Your task to perform on an android device: Go to internet settings Image 0: 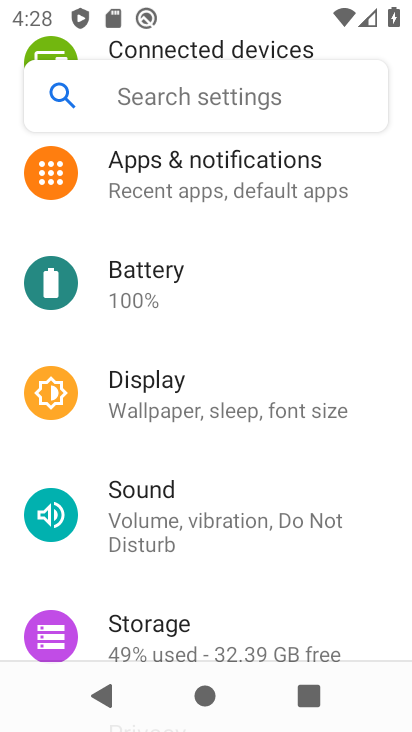
Step 0: drag from (119, 465) to (178, 730)
Your task to perform on an android device: Go to internet settings Image 1: 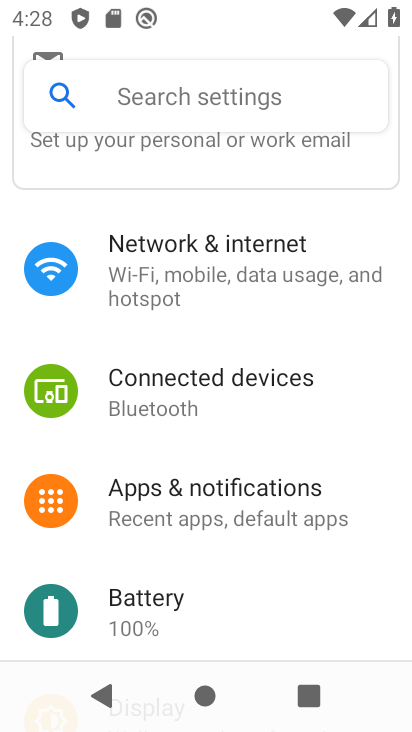
Step 1: click (212, 292)
Your task to perform on an android device: Go to internet settings Image 2: 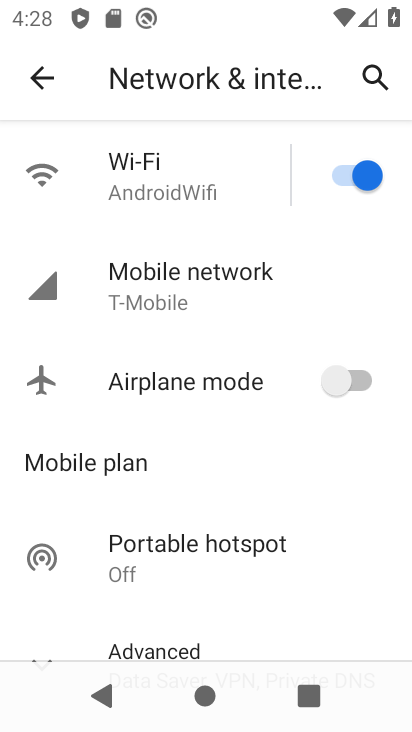
Step 2: drag from (207, 471) to (168, 13)
Your task to perform on an android device: Go to internet settings Image 3: 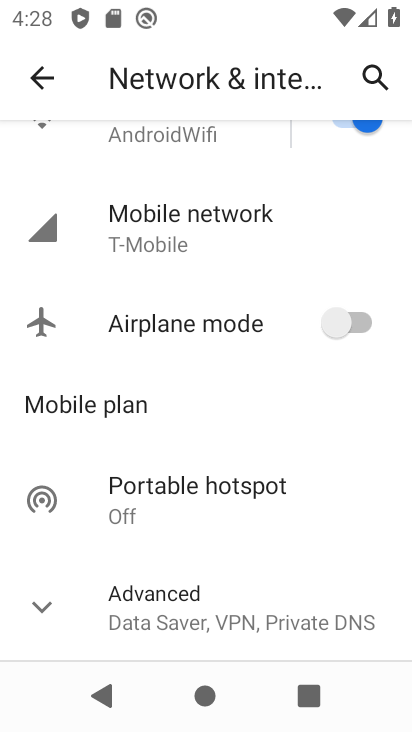
Step 3: click (160, 573)
Your task to perform on an android device: Go to internet settings Image 4: 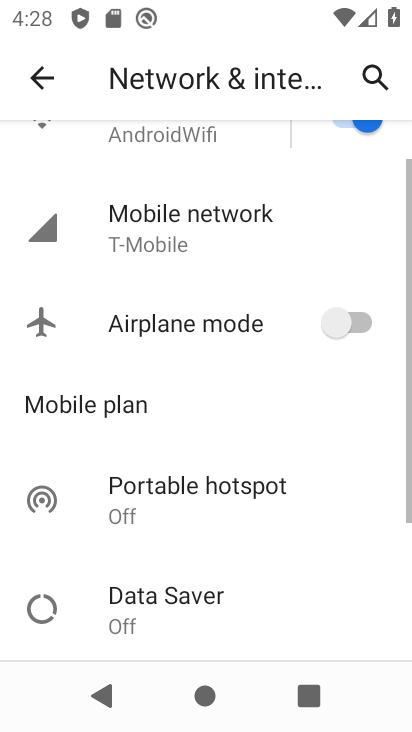
Step 4: task complete